Your task to perform on an android device: Toggle the flashlight Image 0: 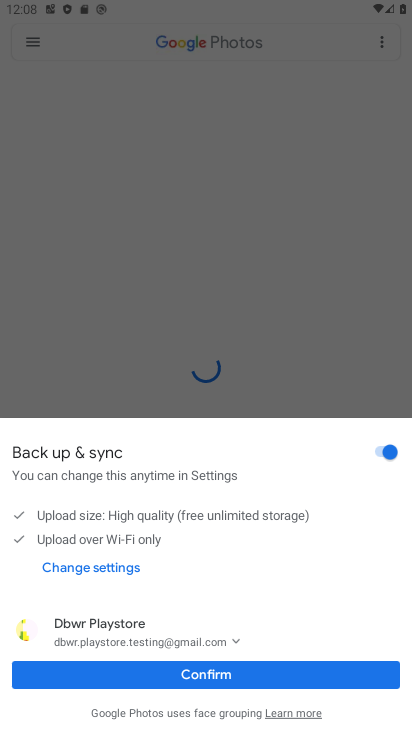
Step 0: press home button
Your task to perform on an android device: Toggle the flashlight Image 1: 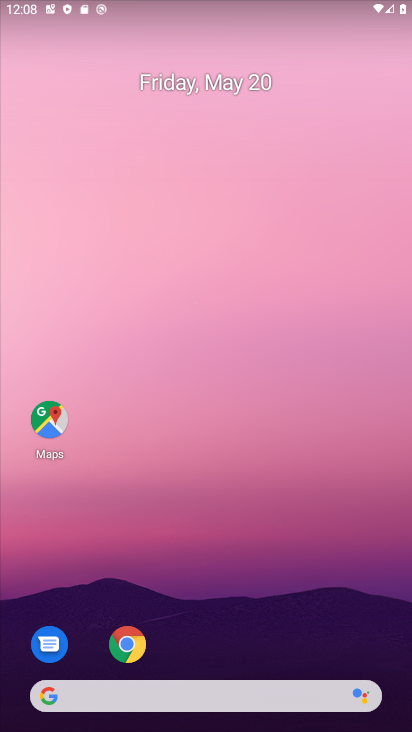
Step 1: drag from (182, 3) to (260, 716)
Your task to perform on an android device: Toggle the flashlight Image 2: 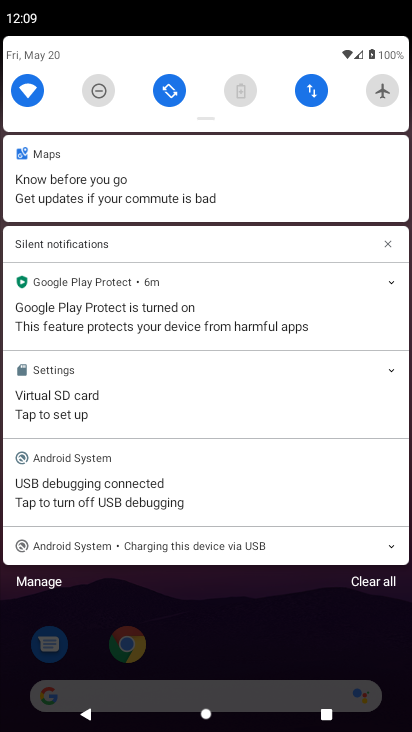
Step 2: click (177, 147)
Your task to perform on an android device: Toggle the flashlight Image 3: 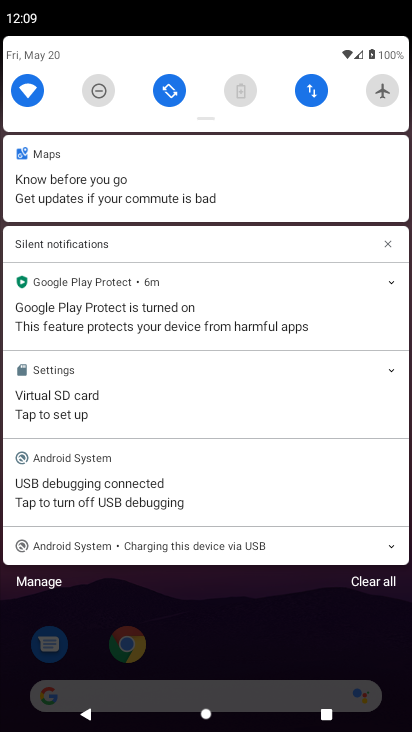
Step 3: task complete